Your task to perform on an android device: turn notification dots off Image 0: 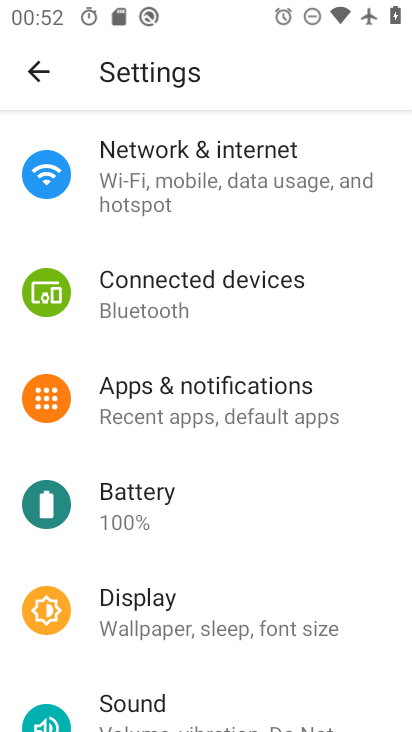
Step 0: click (240, 413)
Your task to perform on an android device: turn notification dots off Image 1: 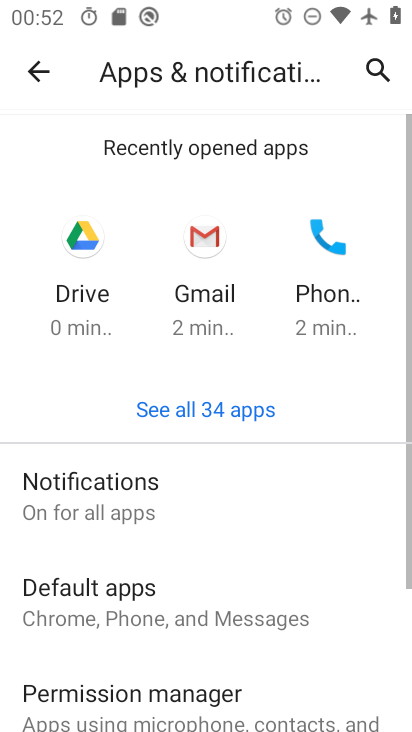
Step 1: click (144, 496)
Your task to perform on an android device: turn notification dots off Image 2: 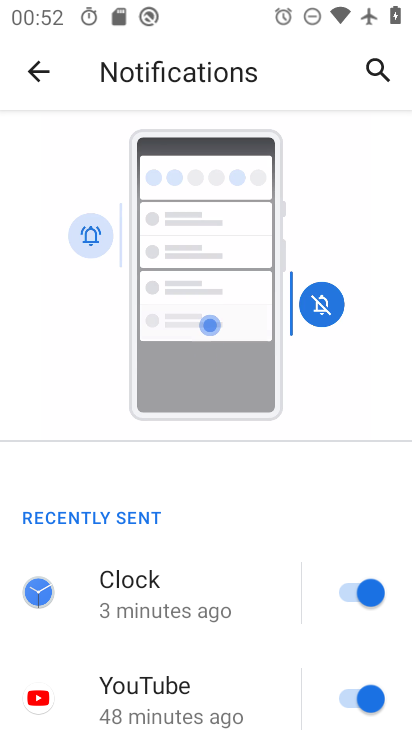
Step 2: drag from (218, 521) to (232, 89)
Your task to perform on an android device: turn notification dots off Image 3: 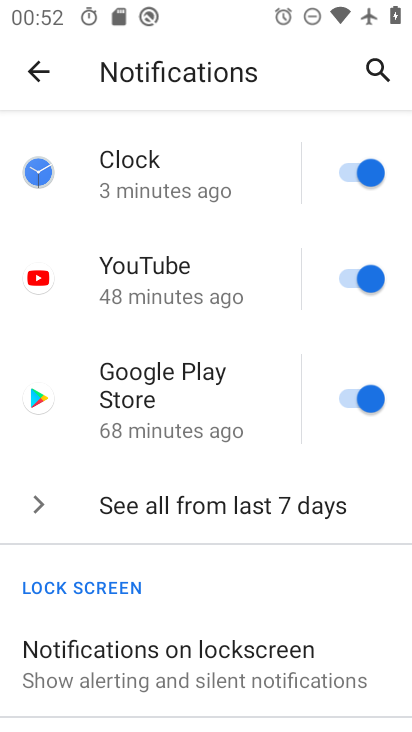
Step 3: drag from (294, 302) to (292, 159)
Your task to perform on an android device: turn notification dots off Image 4: 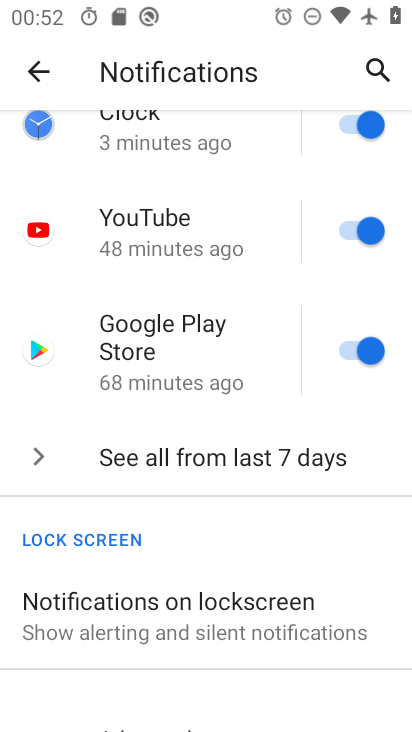
Step 4: drag from (191, 580) to (285, 175)
Your task to perform on an android device: turn notification dots off Image 5: 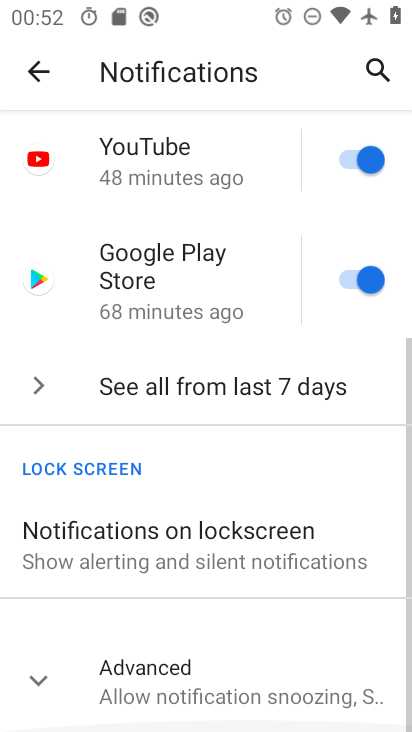
Step 5: click (156, 682)
Your task to perform on an android device: turn notification dots off Image 6: 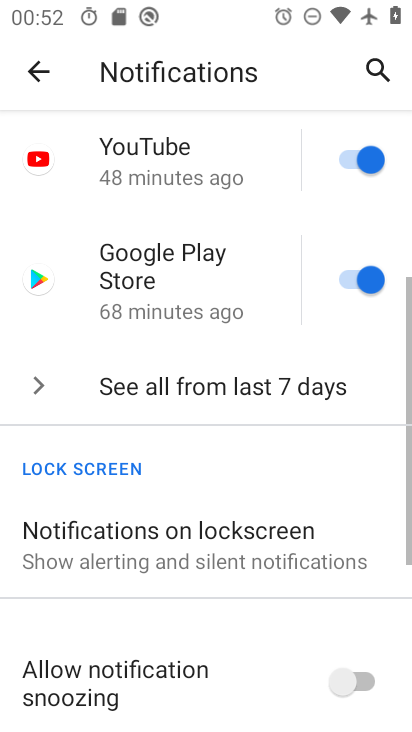
Step 6: drag from (232, 662) to (226, 264)
Your task to perform on an android device: turn notification dots off Image 7: 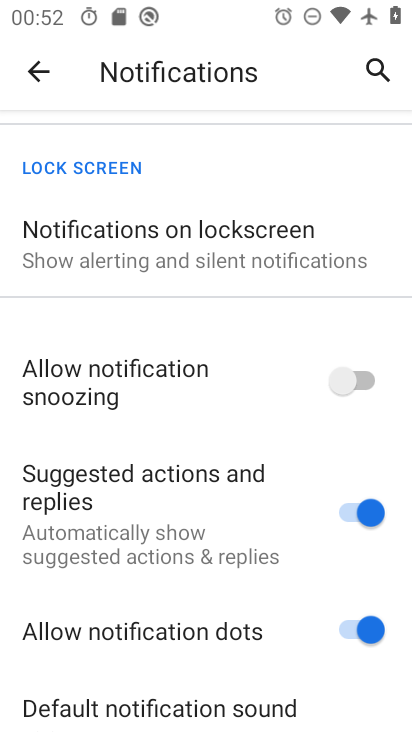
Step 7: click (362, 622)
Your task to perform on an android device: turn notification dots off Image 8: 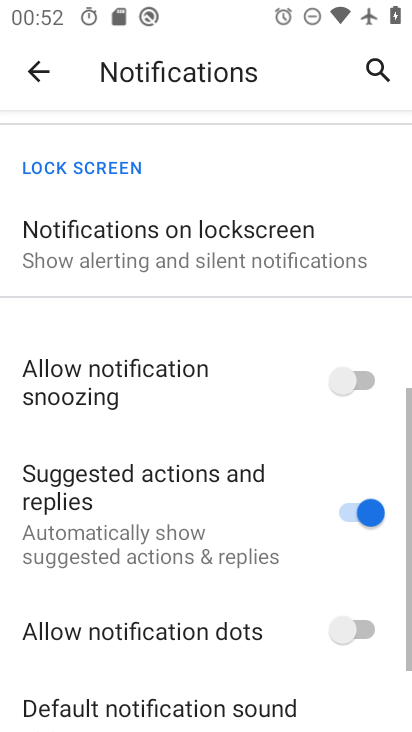
Step 8: task complete